Your task to perform on an android device: Show me the alarms in the clock app Image 0: 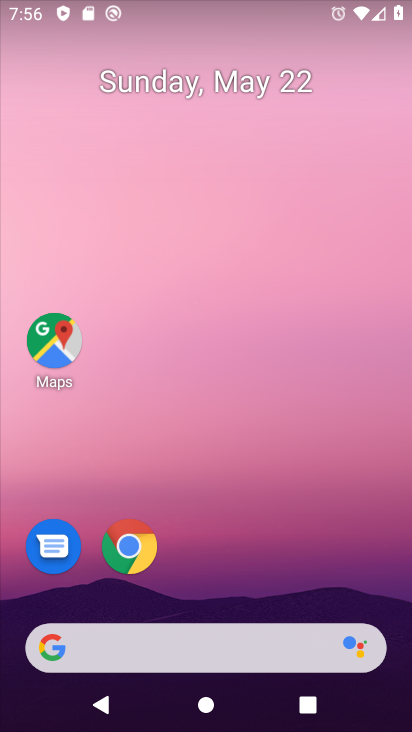
Step 0: drag from (151, 187) to (164, 2)
Your task to perform on an android device: Show me the alarms in the clock app Image 1: 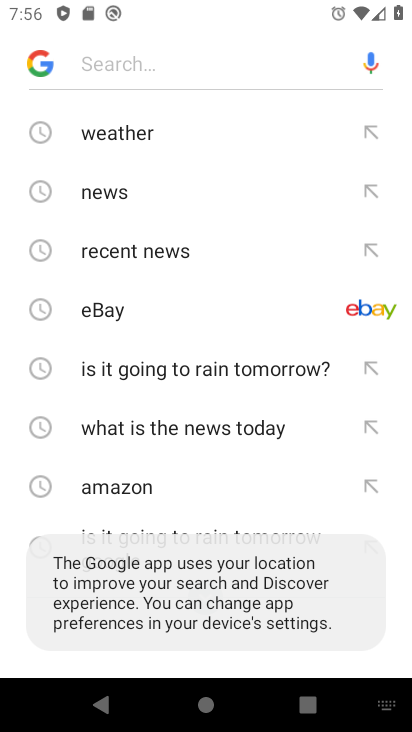
Step 1: press back button
Your task to perform on an android device: Show me the alarms in the clock app Image 2: 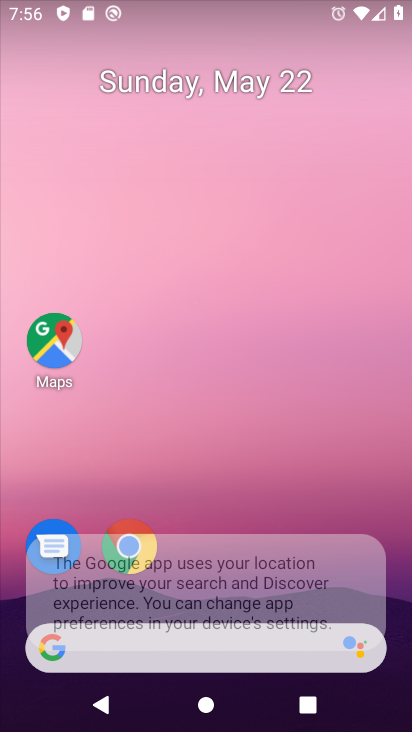
Step 2: drag from (246, 669) to (180, 0)
Your task to perform on an android device: Show me the alarms in the clock app Image 3: 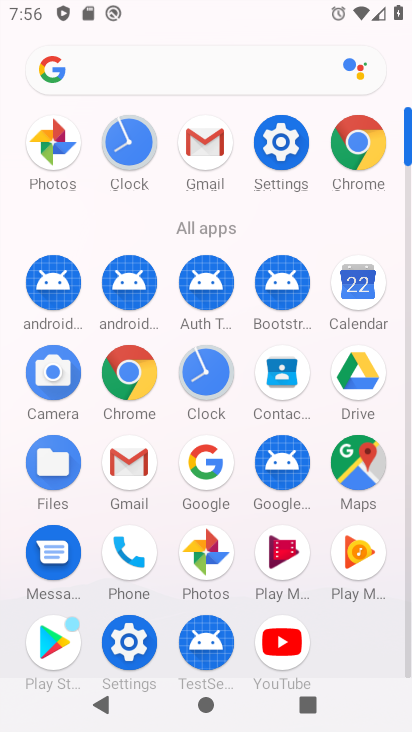
Step 3: click (188, 372)
Your task to perform on an android device: Show me the alarms in the clock app Image 4: 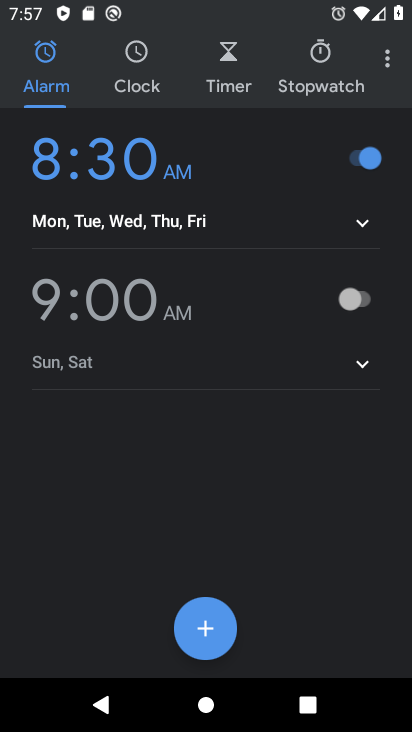
Step 4: task complete